Your task to perform on an android device: What's on my calendar tomorrow? Image 0: 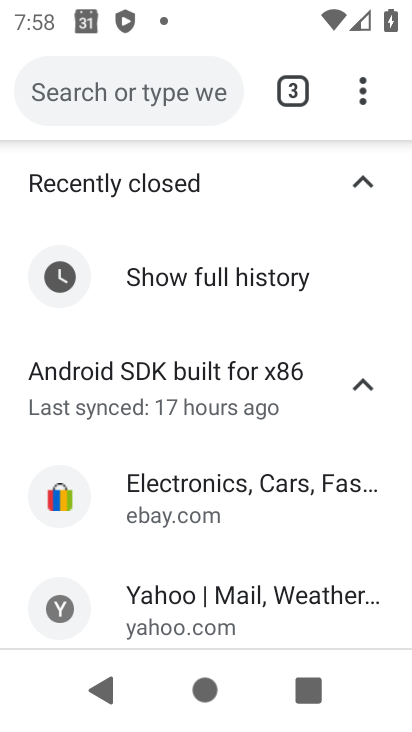
Step 0: press home button
Your task to perform on an android device: What's on my calendar tomorrow? Image 1: 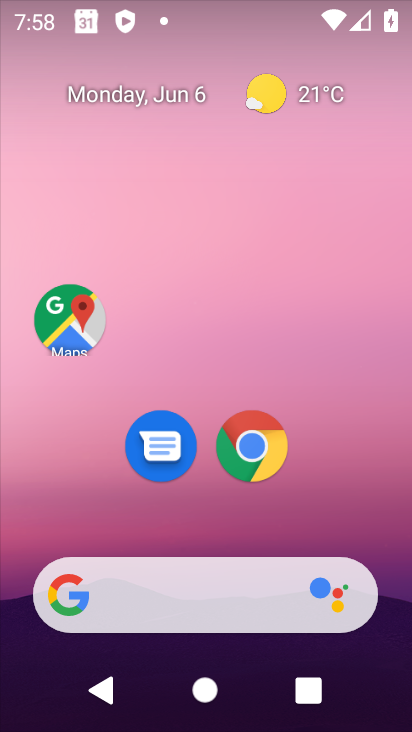
Step 1: drag from (358, 482) to (380, 205)
Your task to perform on an android device: What's on my calendar tomorrow? Image 2: 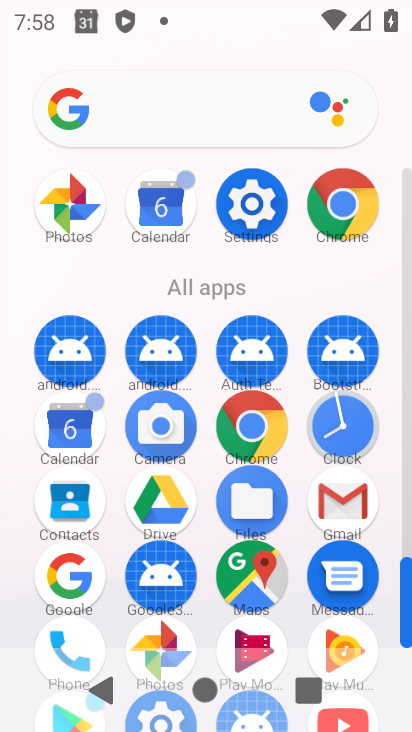
Step 2: click (160, 205)
Your task to perform on an android device: What's on my calendar tomorrow? Image 3: 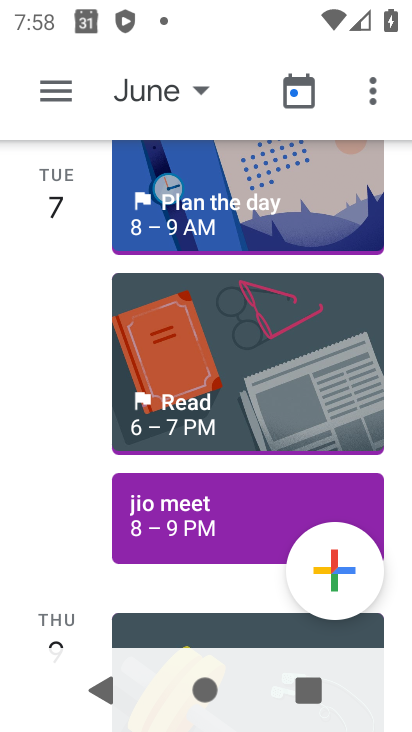
Step 3: click (59, 90)
Your task to perform on an android device: What's on my calendar tomorrow? Image 4: 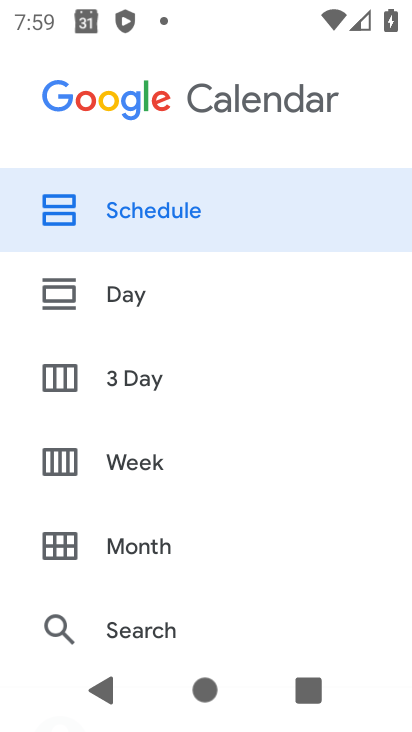
Step 4: click (146, 538)
Your task to perform on an android device: What's on my calendar tomorrow? Image 5: 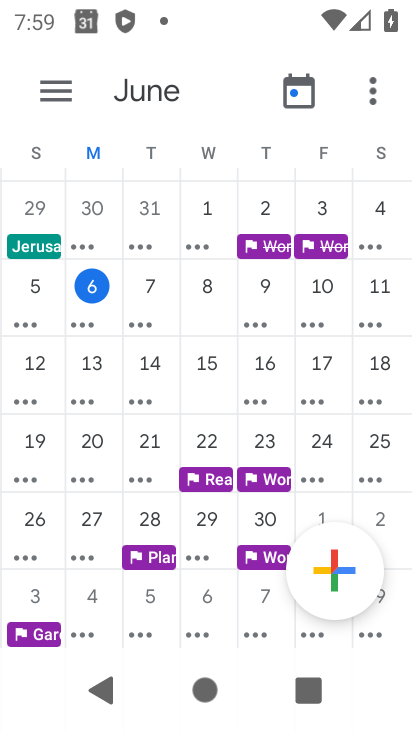
Step 5: click (208, 291)
Your task to perform on an android device: What's on my calendar tomorrow? Image 6: 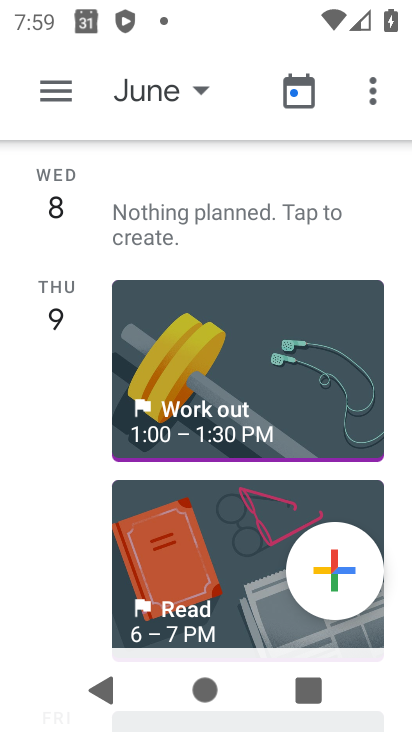
Step 6: task complete